Your task to perform on an android device: View the shopping cart on newegg. Add rayovac triple a to the cart on newegg, then select checkout. Image 0: 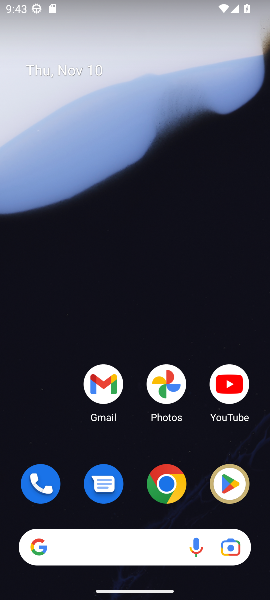
Step 0: click (166, 485)
Your task to perform on an android device: View the shopping cart on newegg. Add rayovac triple a to the cart on newegg, then select checkout. Image 1: 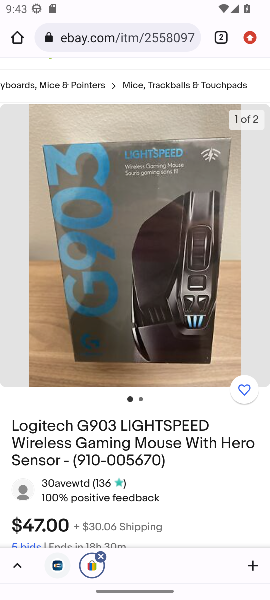
Step 1: click (96, 45)
Your task to perform on an android device: View the shopping cart on newegg. Add rayovac triple a to the cart on newegg, then select checkout. Image 2: 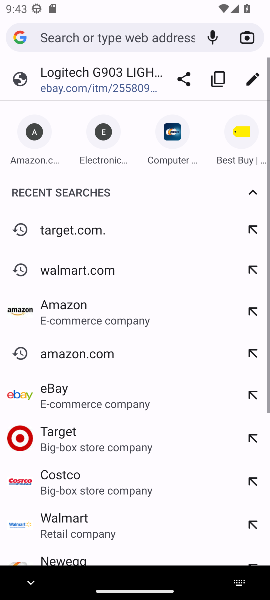
Step 2: click (181, 165)
Your task to perform on an android device: View the shopping cart on newegg. Add rayovac triple a to the cart on newegg, then select checkout. Image 3: 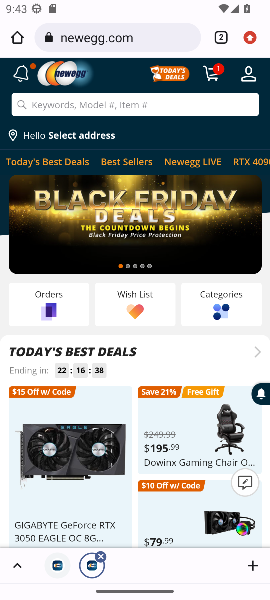
Step 3: click (205, 72)
Your task to perform on an android device: View the shopping cart on newegg. Add rayovac triple a to the cart on newegg, then select checkout. Image 4: 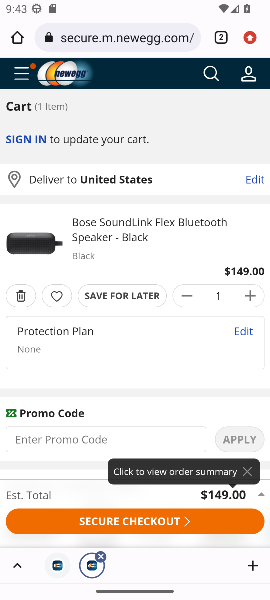
Step 4: click (202, 76)
Your task to perform on an android device: View the shopping cart on newegg. Add rayovac triple a to the cart on newegg, then select checkout. Image 5: 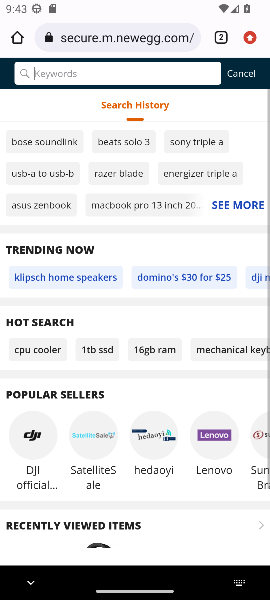
Step 5: type "rayovac triple a "
Your task to perform on an android device: View the shopping cart on newegg. Add rayovac triple a to the cart on newegg, then select checkout. Image 6: 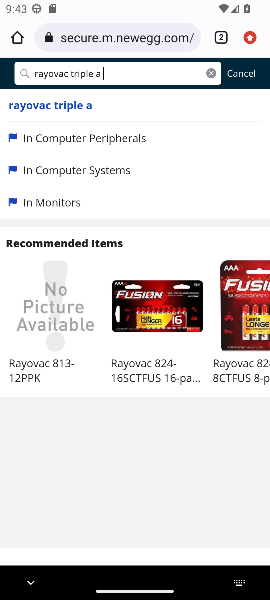
Step 6: click (78, 115)
Your task to perform on an android device: View the shopping cart on newegg. Add rayovac triple a to the cart on newegg, then select checkout. Image 7: 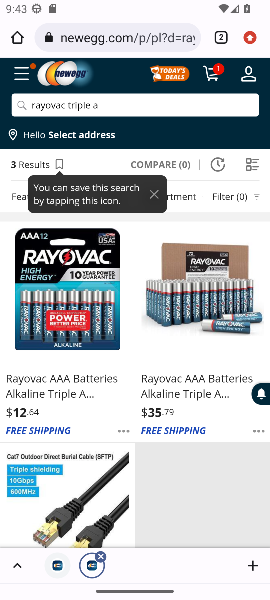
Step 7: click (72, 334)
Your task to perform on an android device: View the shopping cart on newegg. Add rayovac triple a to the cart on newegg, then select checkout. Image 8: 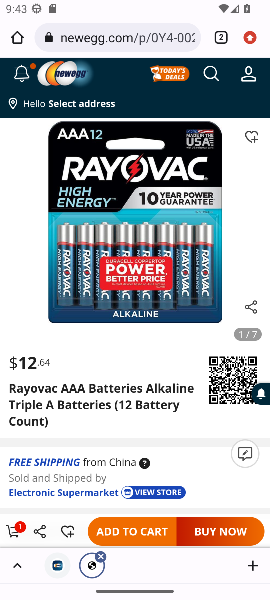
Step 8: click (124, 538)
Your task to perform on an android device: View the shopping cart on newegg. Add rayovac triple a to the cart on newegg, then select checkout. Image 9: 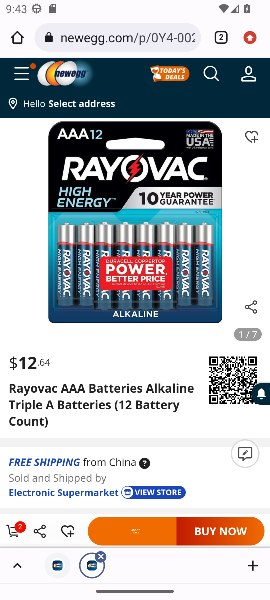
Step 9: click (17, 531)
Your task to perform on an android device: View the shopping cart on newegg. Add rayovac triple a to the cart on newegg, then select checkout. Image 10: 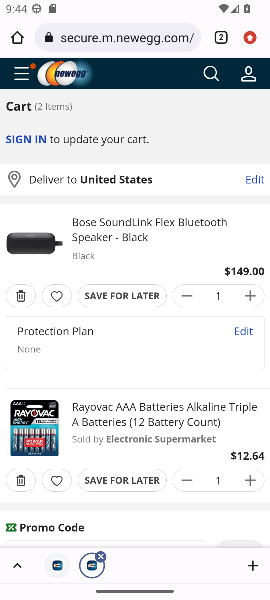
Step 10: click (83, 535)
Your task to perform on an android device: View the shopping cart on newegg. Add rayovac triple a to the cart on newegg, then select checkout. Image 11: 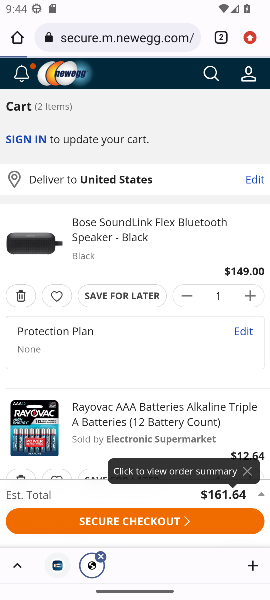
Step 11: click (87, 527)
Your task to perform on an android device: View the shopping cart on newegg. Add rayovac triple a to the cart on newegg, then select checkout. Image 12: 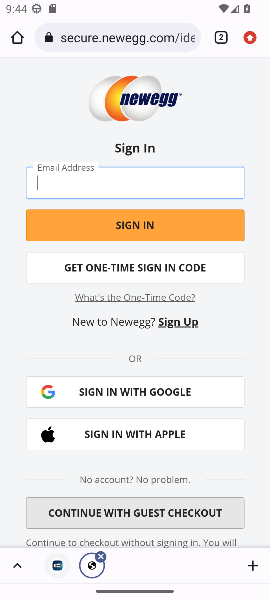
Step 12: task complete